Your task to perform on an android device: Open the Play Movies app and select the watchlist tab. Image 0: 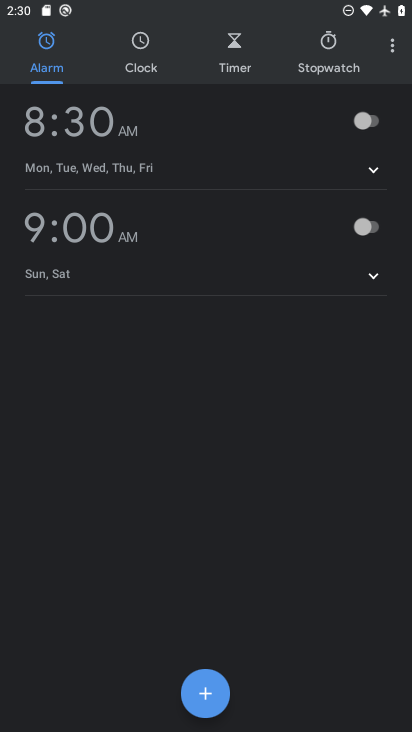
Step 0: press home button
Your task to perform on an android device: Open the Play Movies app and select the watchlist tab. Image 1: 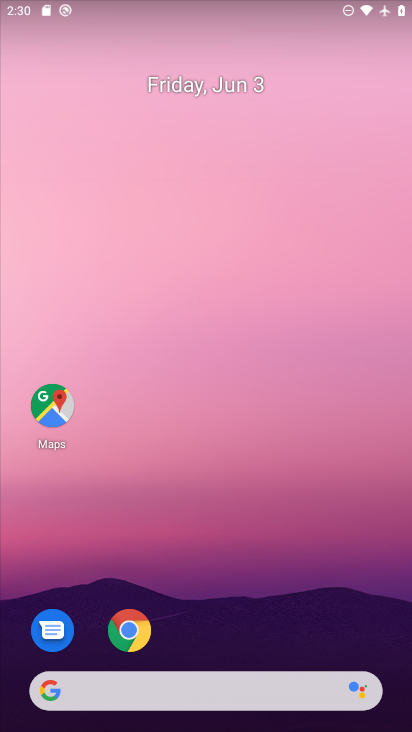
Step 1: drag from (222, 712) to (254, 41)
Your task to perform on an android device: Open the Play Movies app and select the watchlist tab. Image 2: 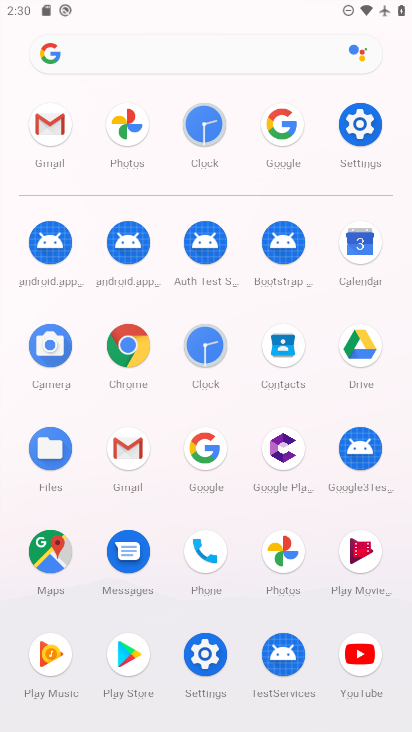
Step 2: click (361, 560)
Your task to perform on an android device: Open the Play Movies app and select the watchlist tab. Image 3: 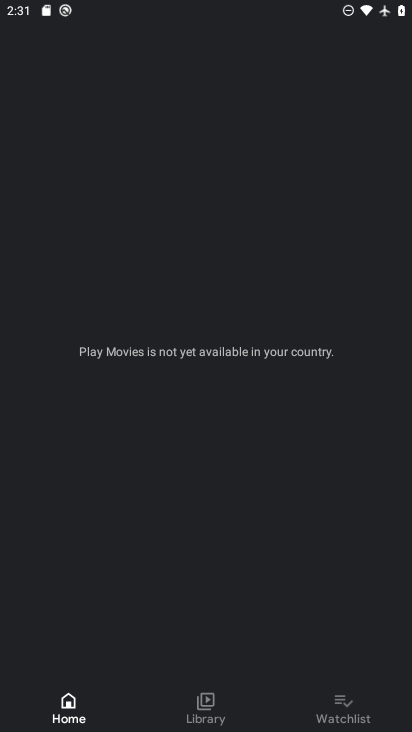
Step 3: click (333, 703)
Your task to perform on an android device: Open the Play Movies app and select the watchlist tab. Image 4: 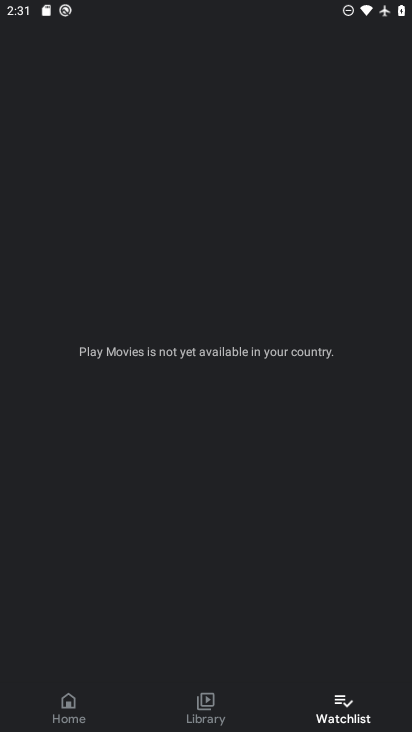
Step 4: task complete